Your task to perform on an android device: Go to wifi settings Image 0: 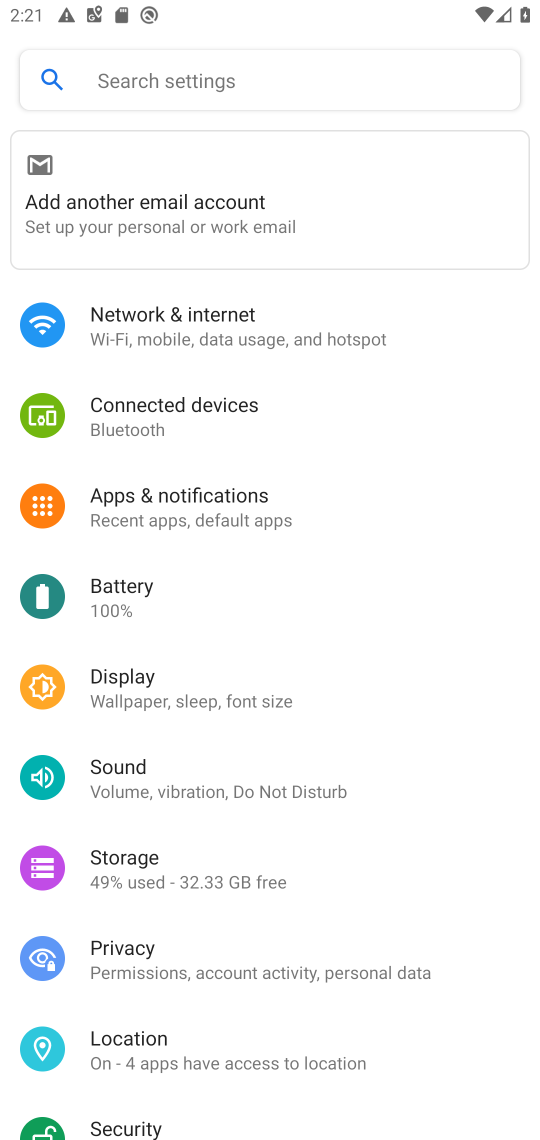
Step 0: click (270, 326)
Your task to perform on an android device: Go to wifi settings Image 1: 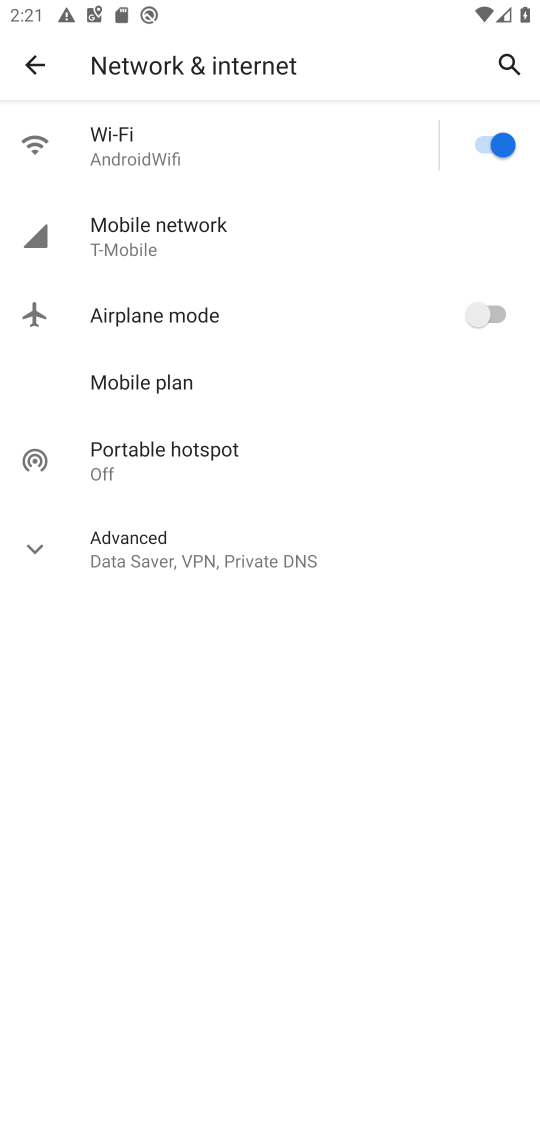
Step 1: click (291, 155)
Your task to perform on an android device: Go to wifi settings Image 2: 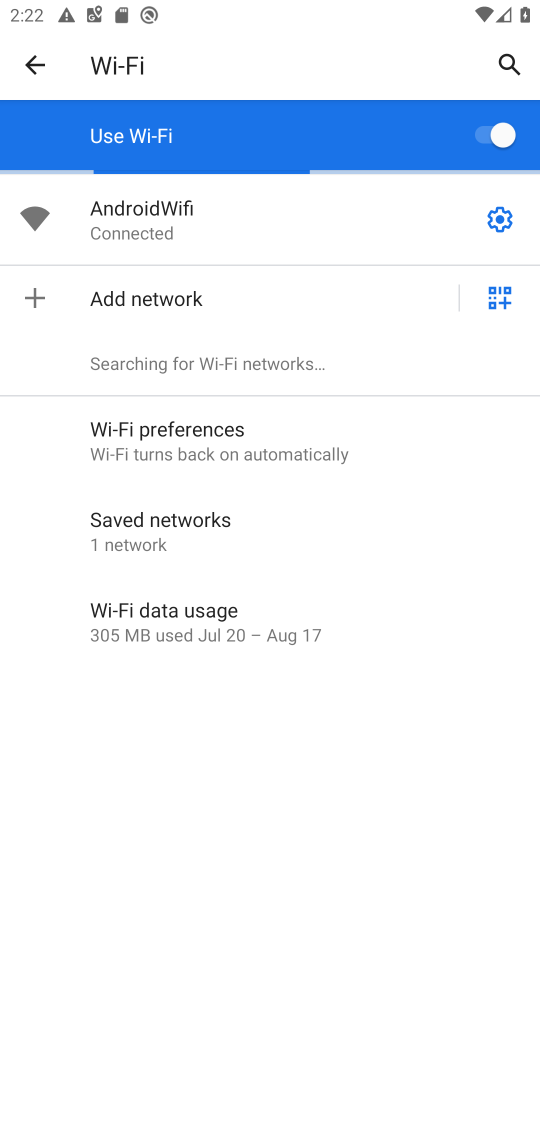
Step 2: task complete